Your task to perform on an android device: change your default location settings in chrome Image 0: 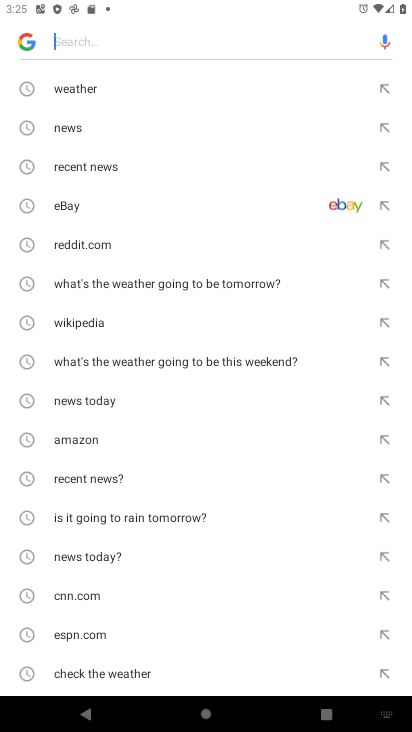
Step 0: press back button
Your task to perform on an android device: change your default location settings in chrome Image 1: 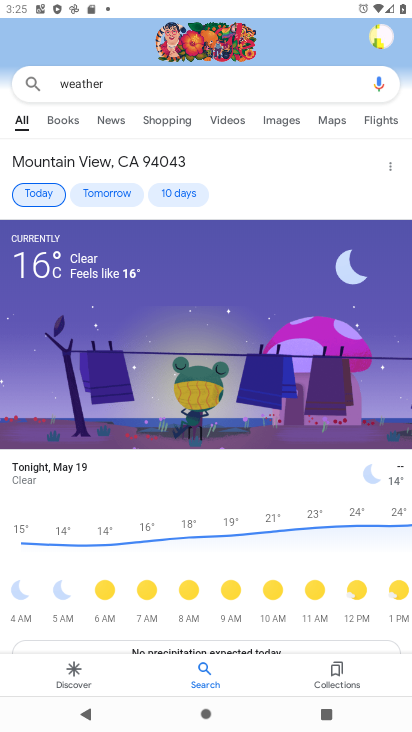
Step 1: press back button
Your task to perform on an android device: change your default location settings in chrome Image 2: 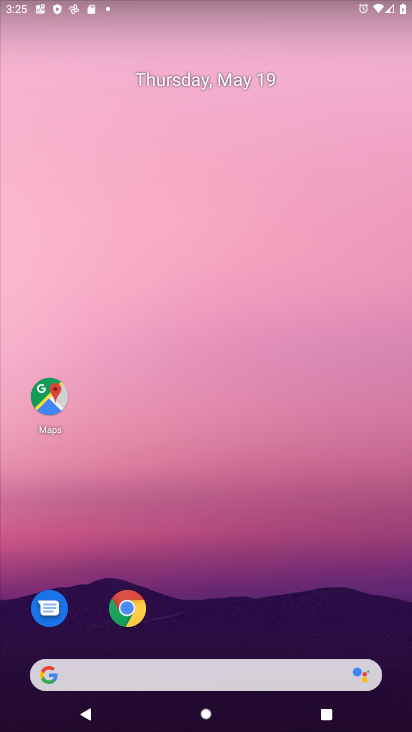
Step 2: click (294, 595)
Your task to perform on an android device: change your default location settings in chrome Image 3: 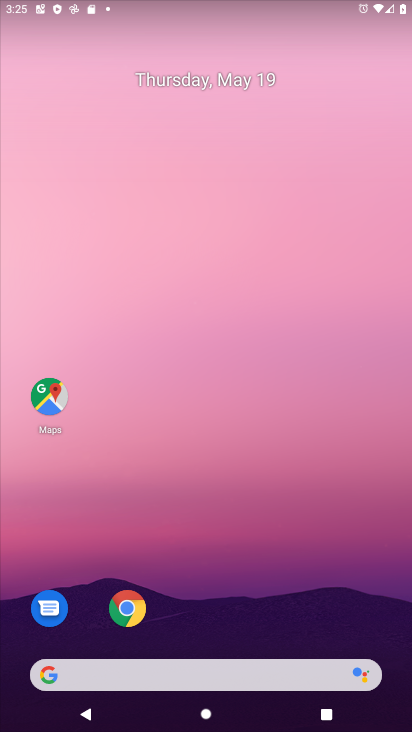
Step 3: click (111, 590)
Your task to perform on an android device: change your default location settings in chrome Image 4: 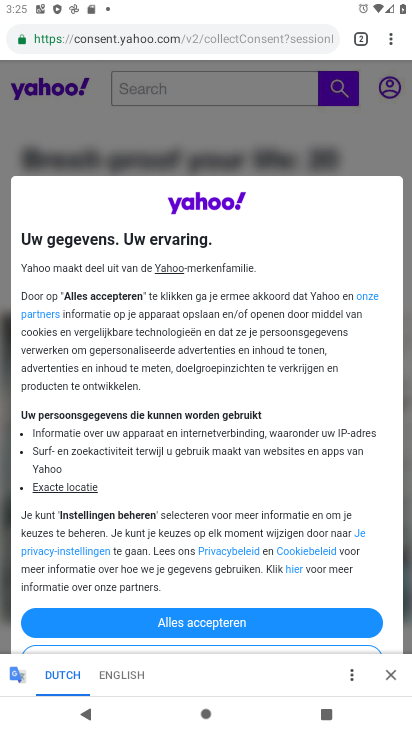
Step 4: click (398, 31)
Your task to perform on an android device: change your default location settings in chrome Image 5: 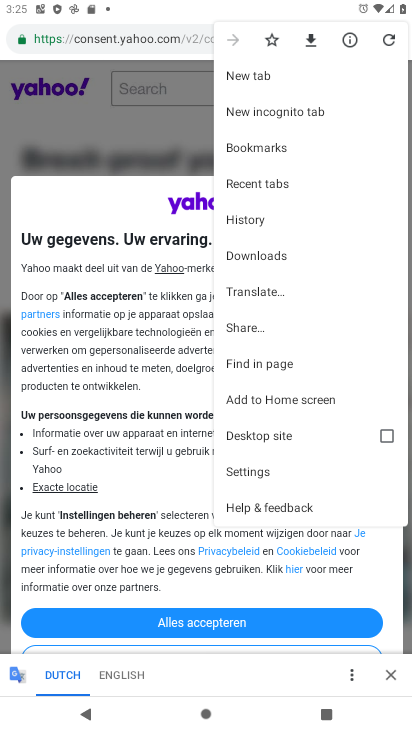
Step 5: click (264, 482)
Your task to perform on an android device: change your default location settings in chrome Image 6: 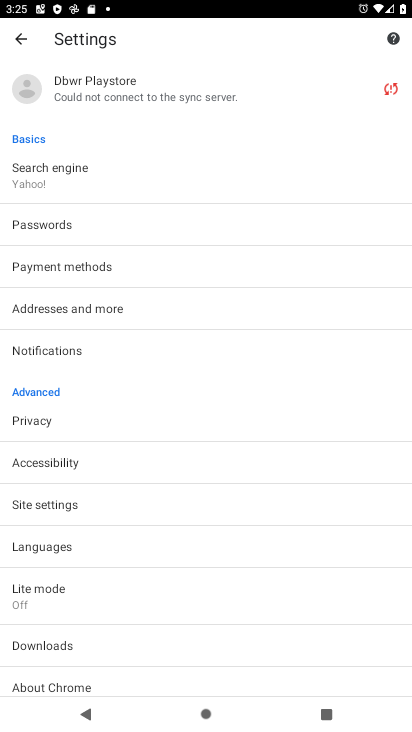
Step 6: click (135, 313)
Your task to perform on an android device: change your default location settings in chrome Image 7: 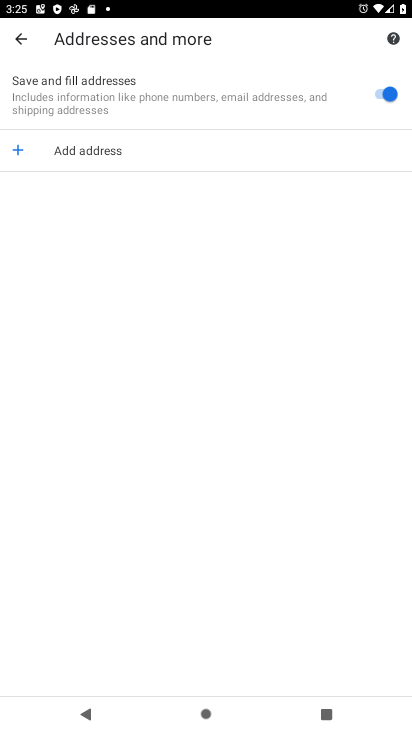
Step 7: task complete